Your task to perform on an android device: Go to internet settings Image 0: 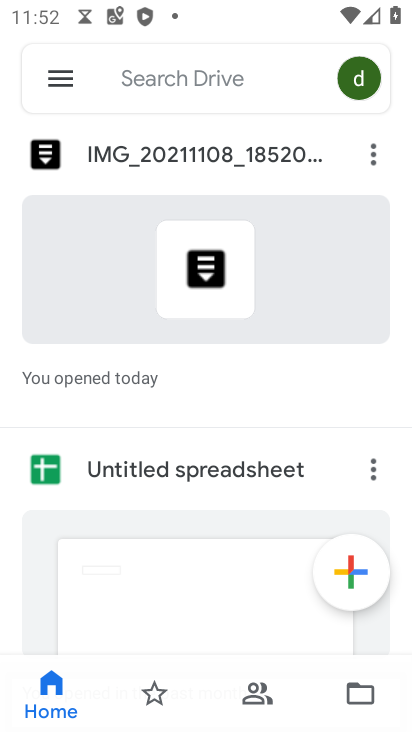
Step 0: press home button
Your task to perform on an android device: Go to internet settings Image 1: 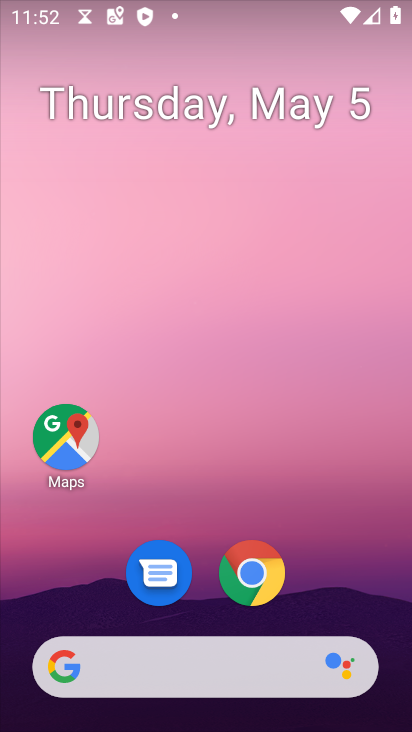
Step 1: drag from (314, 542) to (317, 348)
Your task to perform on an android device: Go to internet settings Image 2: 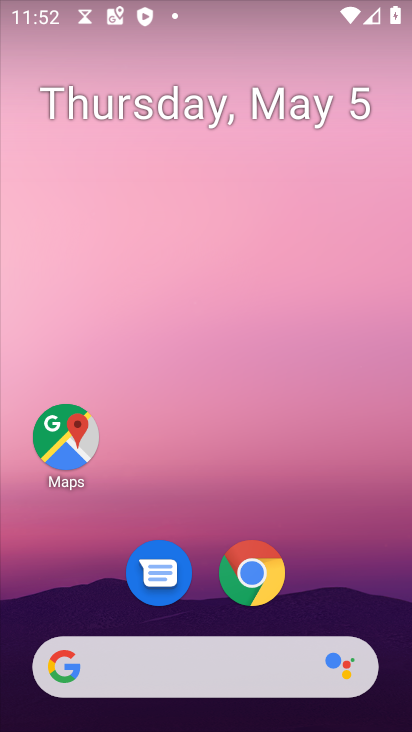
Step 2: drag from (327, 580) to (293, 218)
Your task to perform on an android device: Go to internet settings Image 3: 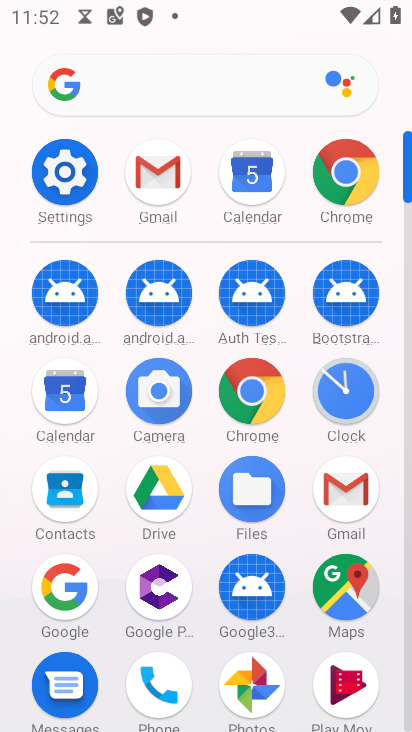
Step 3: click (57, 165)
Your task to perform on an android device: Go to internet settings Image 4: 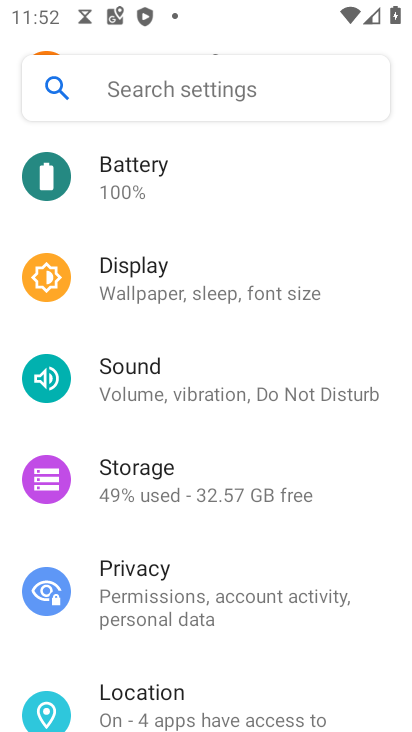
Step 4: drag from (190, 188) to (237, 587)
Your task to perform on an android device: Go to internet settings Image 5: 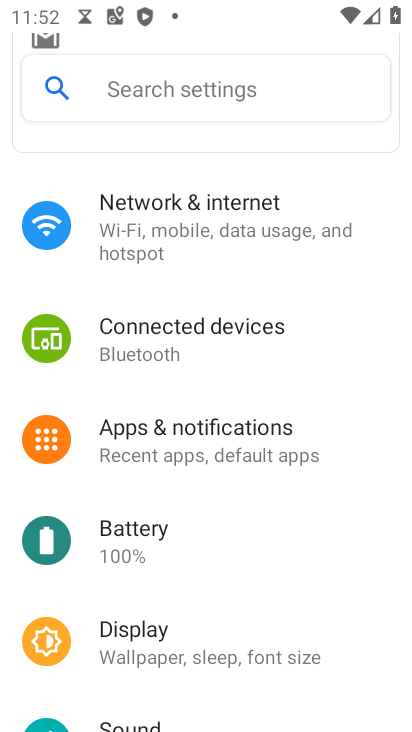
Step 5: click (235, 224)
Your task to perform on an android device: Go to internet settings Image 6: 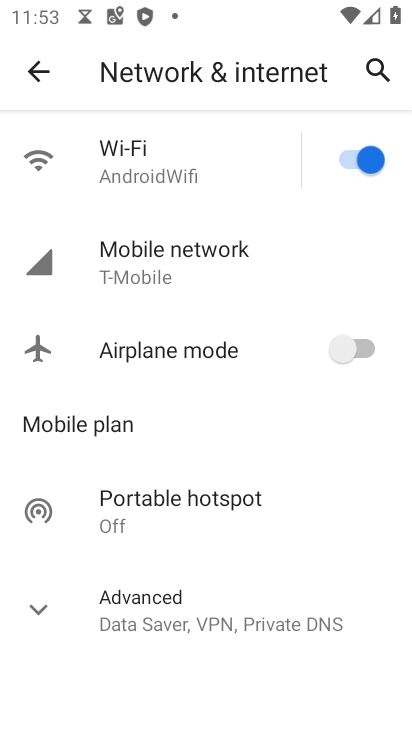
Step 6: task complete